Your task to perform on an android device: Open calendar and show me the third week of next month Image 0: 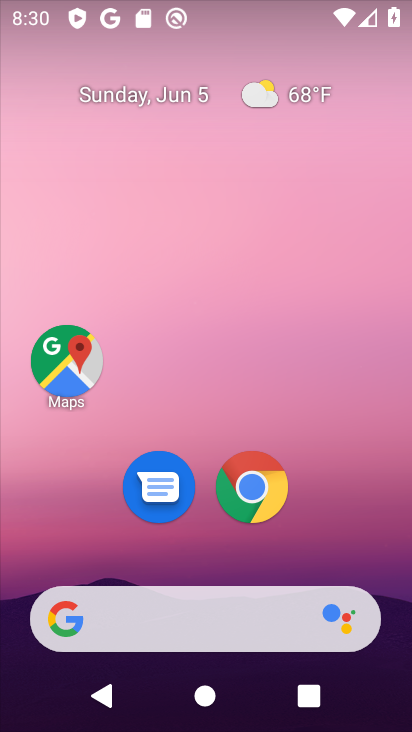
Step 0: drag from (171, 572) to (198, 44)
Your task to perform on an android device: Open calendar and show me the third week of next month Image 1: 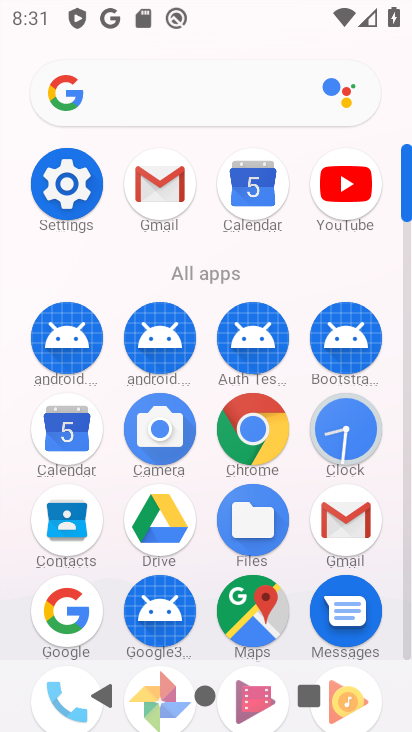
Step 1: click (75, 426)
Your task to perform on an android device: Open calendar and show me the third week of next month Image 2: 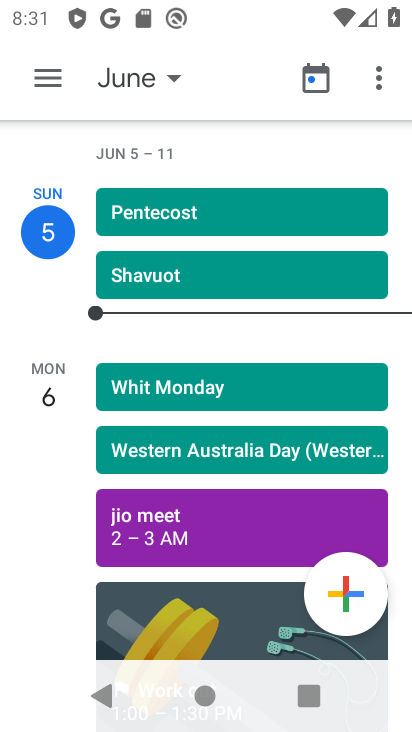
Step 2: click (144, 80)
Your task to perform on an android device: Open calendar and show me the third week of next month Image 3: 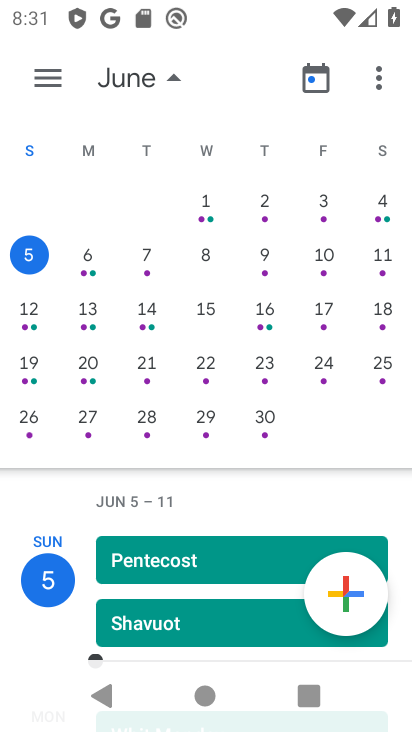
Step 3: drag from (375, 372) to (0, 363)
Your task to perform on an android device: Open calendar and show me the third week of next month Image 4: 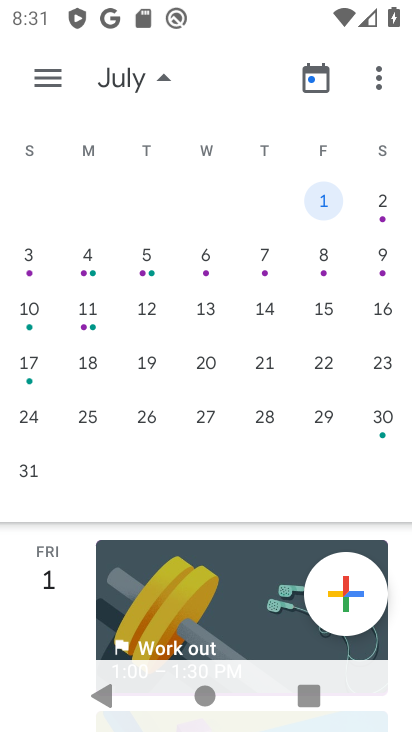
Step 4: click (91, 319)
Your task to perform on an android device: Open calendar and show me the third week of next month Image 5: 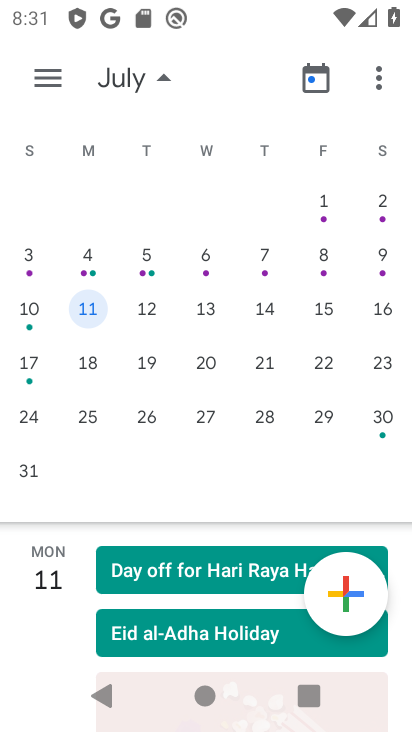
Step 5: click (84, 368)
Your task to perform on an android device: Open calendar and show me the third week of next month Image 6: 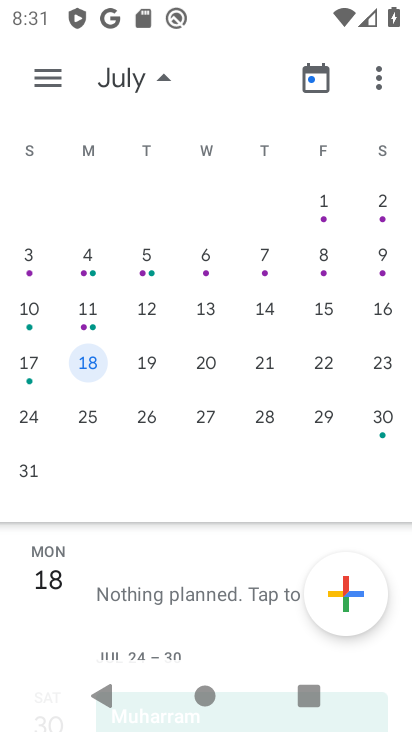
Step 6: task complete